Your task to perform on an android device: change timer sound Image 0: 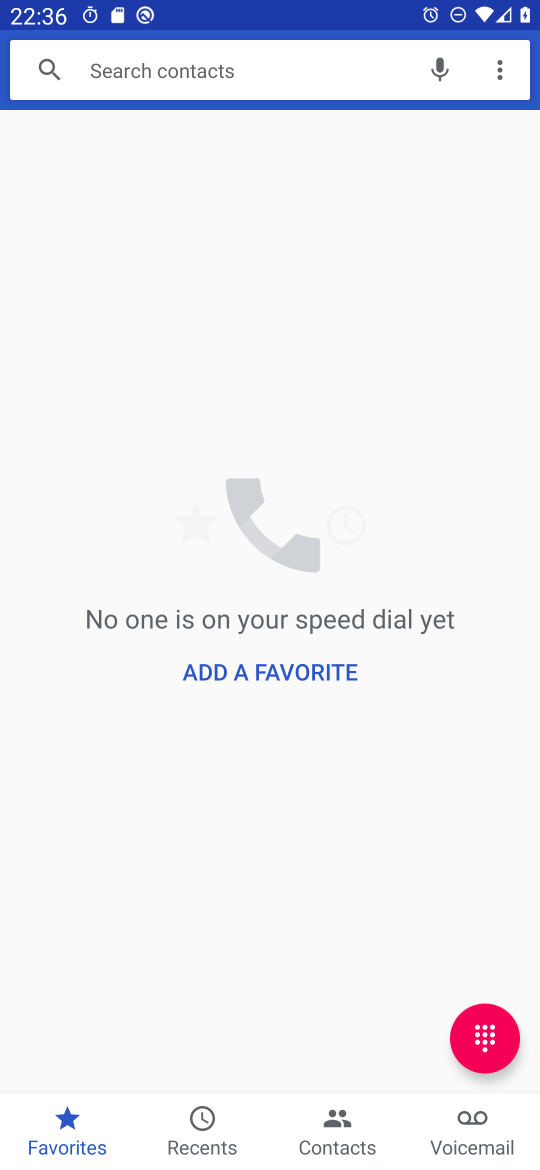
Step 0: press back button
Your task to perform on an android device: change timer sound Image 1: 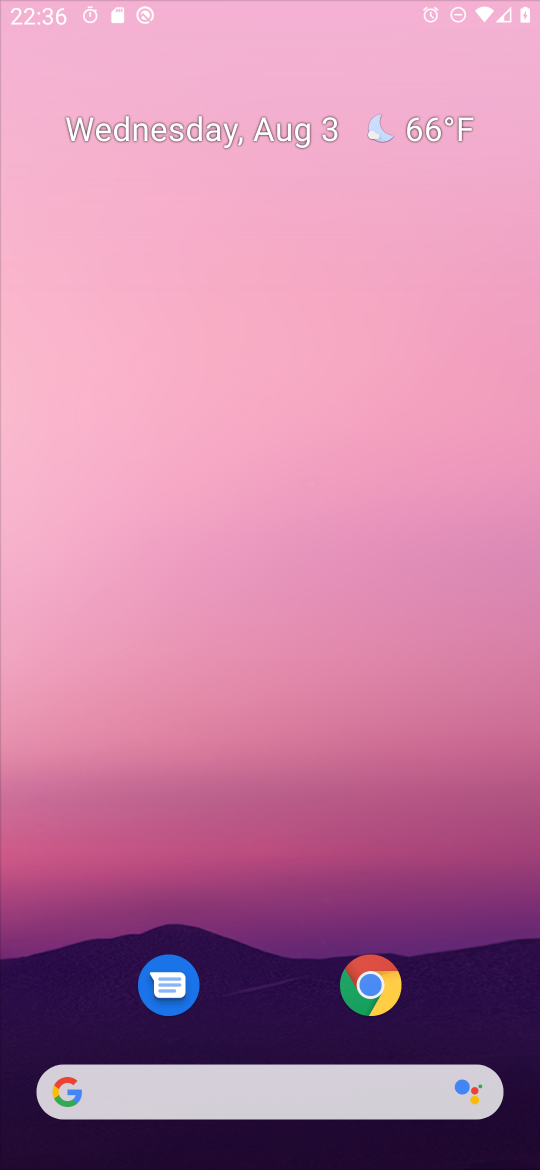
Step 1: press home button
Your task to perform on an android device: change timer sound Image 2: 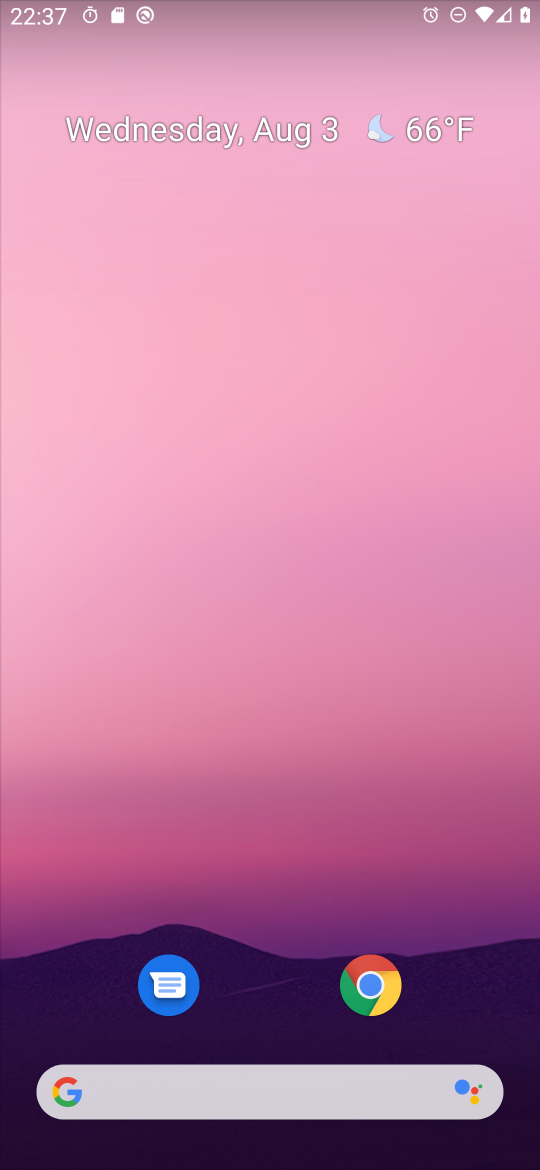
Step 2: drag from (274, 772) to (267, 259)
Your task to perform on an android device: change timer sound Image 3: 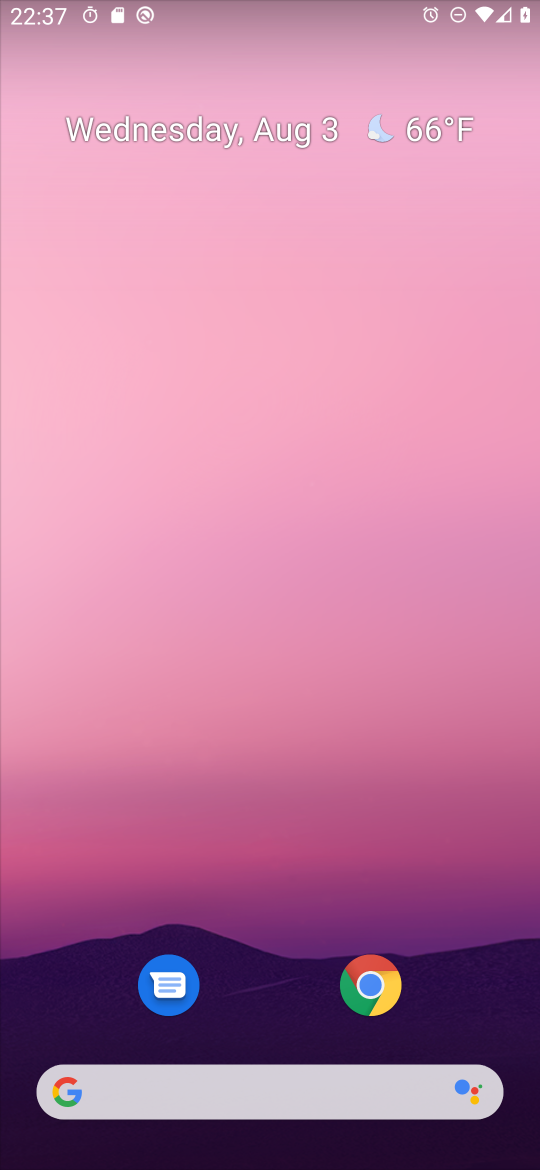
Step 3: drag from (280, 945) to (280, 254)
Your task to perform on an android device: change timer sound Image 4: 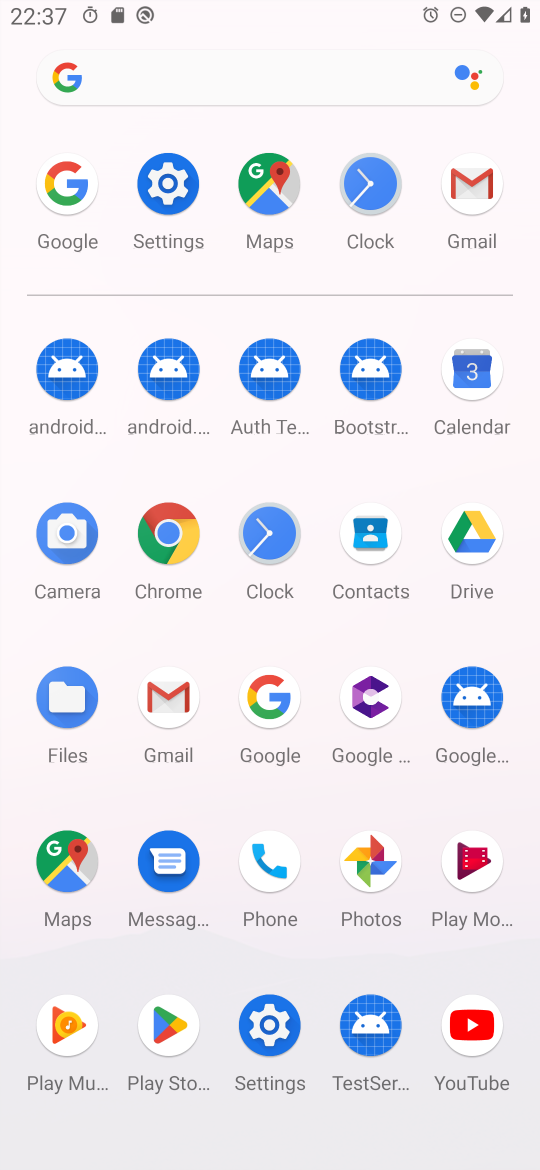
Step 4: click (373, 183)
Your task to perform on an android device: change timer sound Image 5: 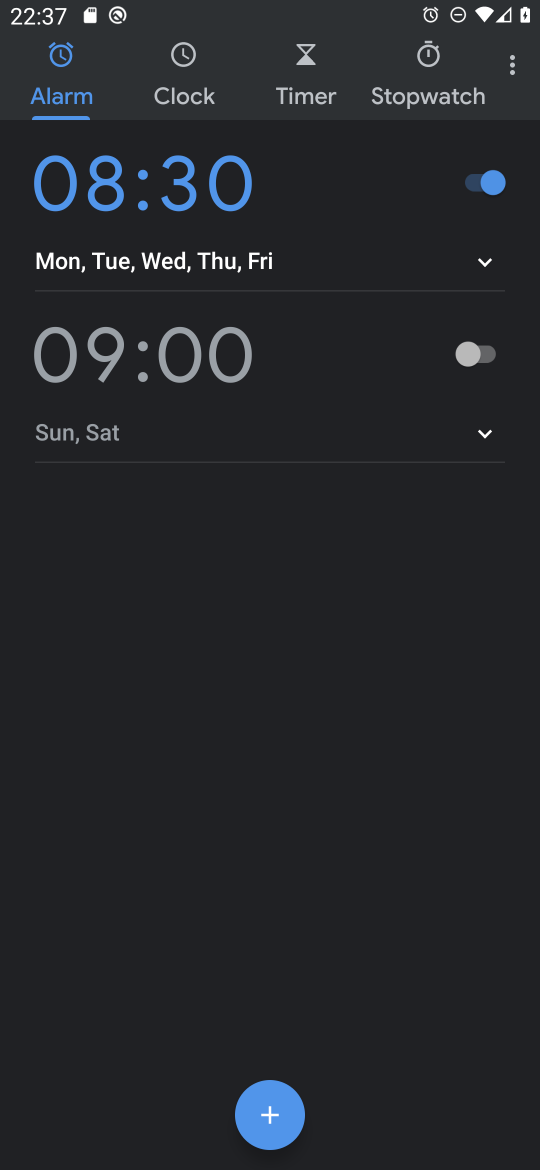
Step 5: click (521, 73)
Your task to perform on an android device: change timer sound Image 6: 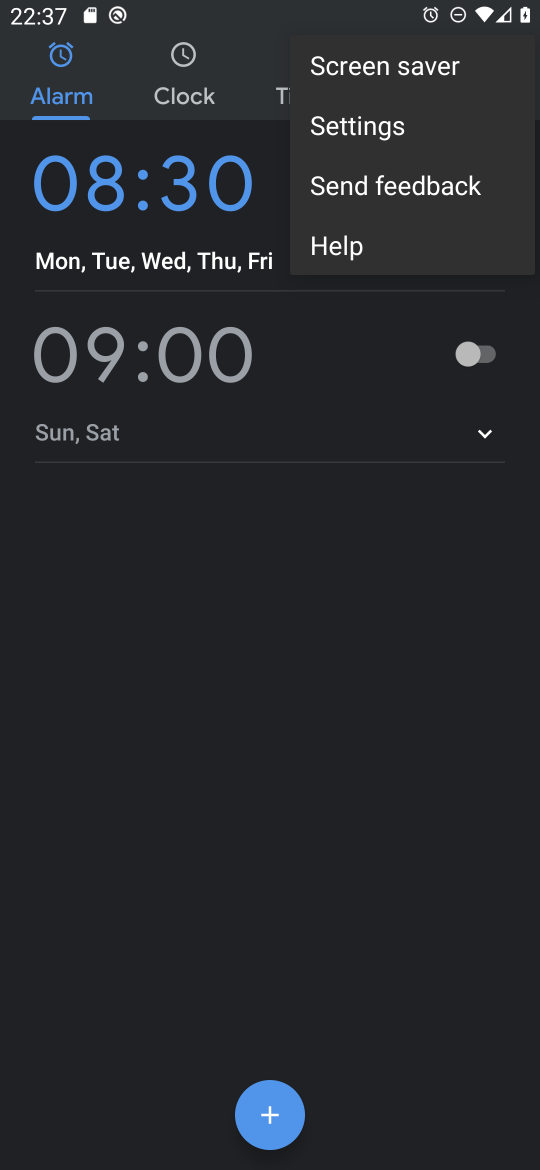
Step 6: click (457, 118)
Your task to perform on an android device: change timer sound Image 7: 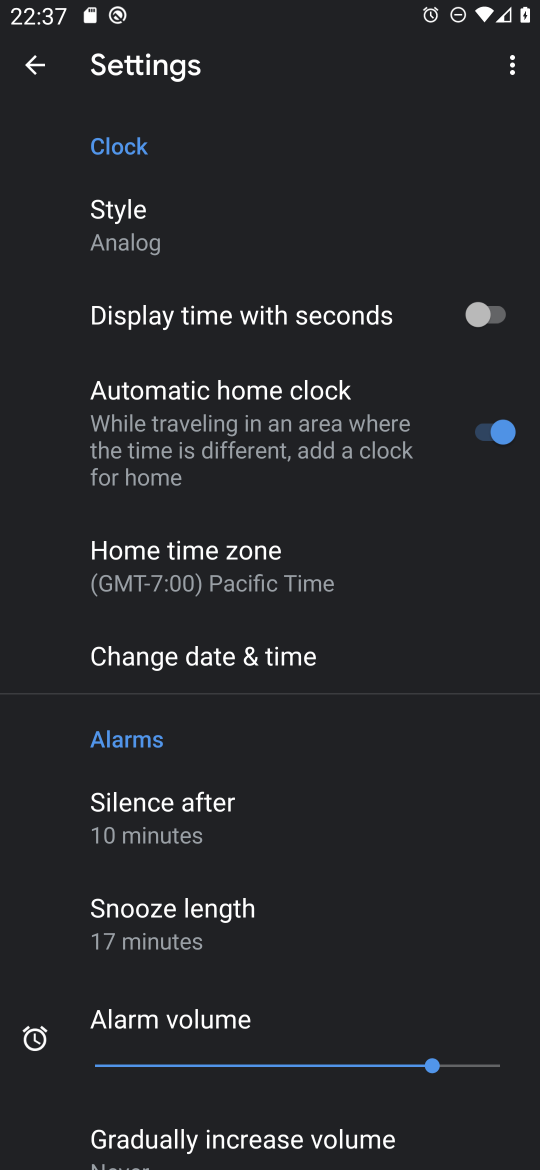
Step 7: drag from (275, 894) to (321, 283)
Your task to perform on an android device: change timer sound Image 8: 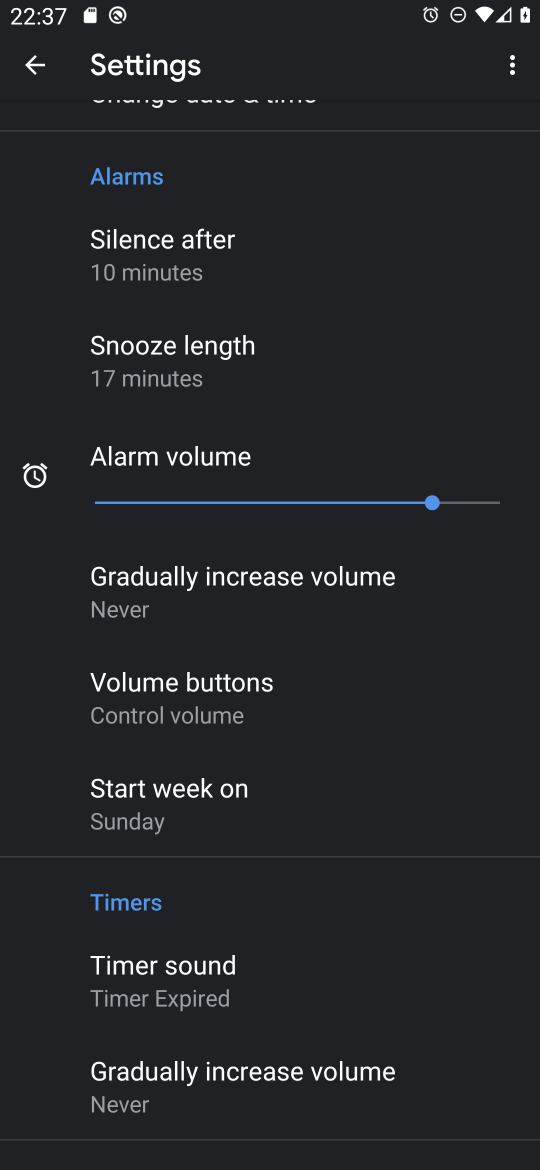
Step 8: click (246, 948)
Your task to perform on an android device: change timer sound Image 9: 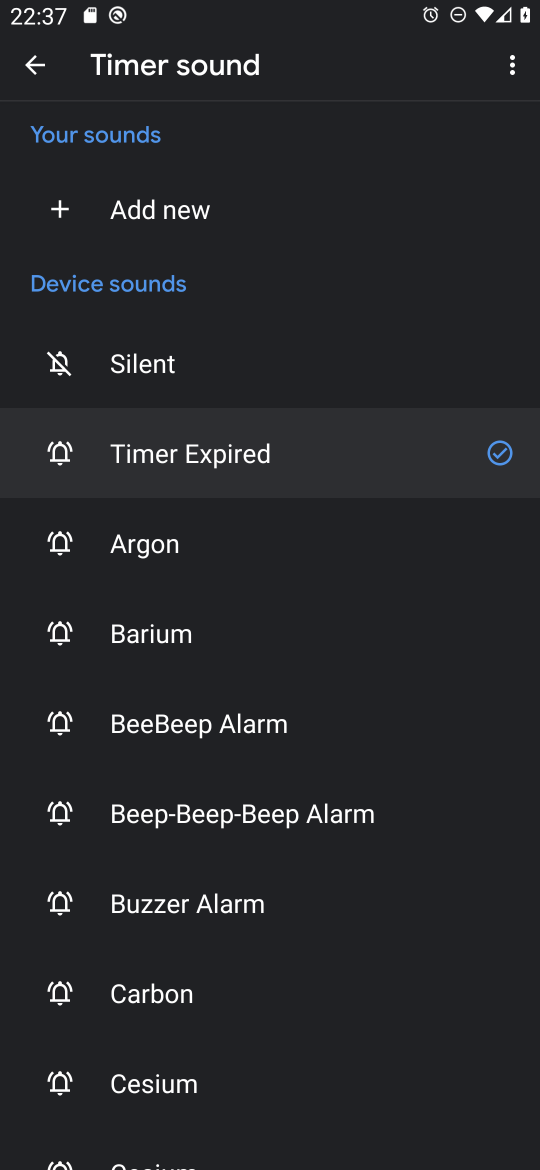
Step 9: click (172, 645)
Your task to perform on an android device: change timer sound Image 10: 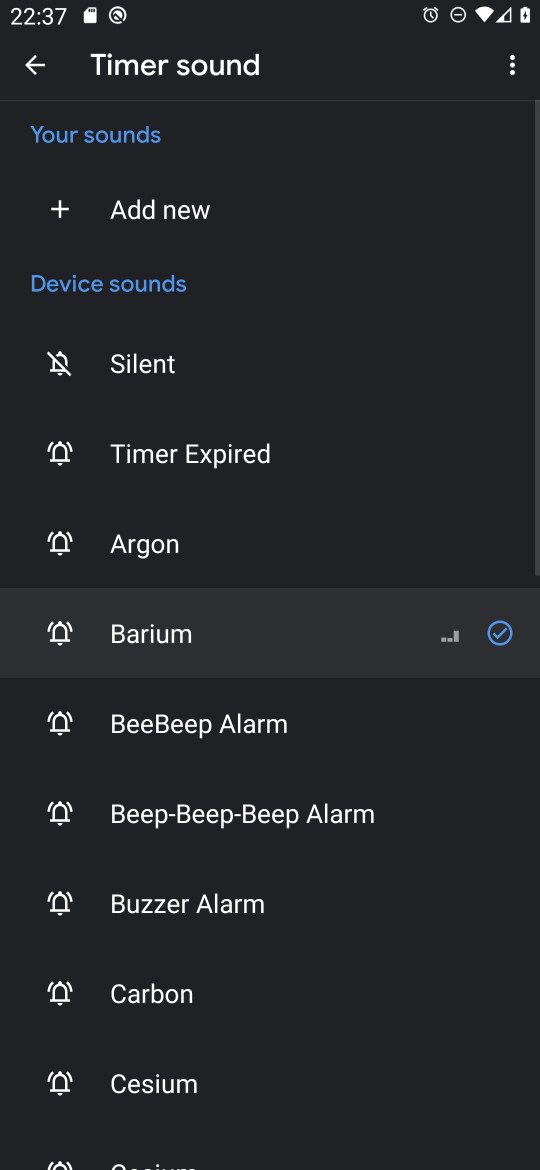
Step 10: task complete